Your task to perform on an android device: What is the average speed of a car? Image 0: 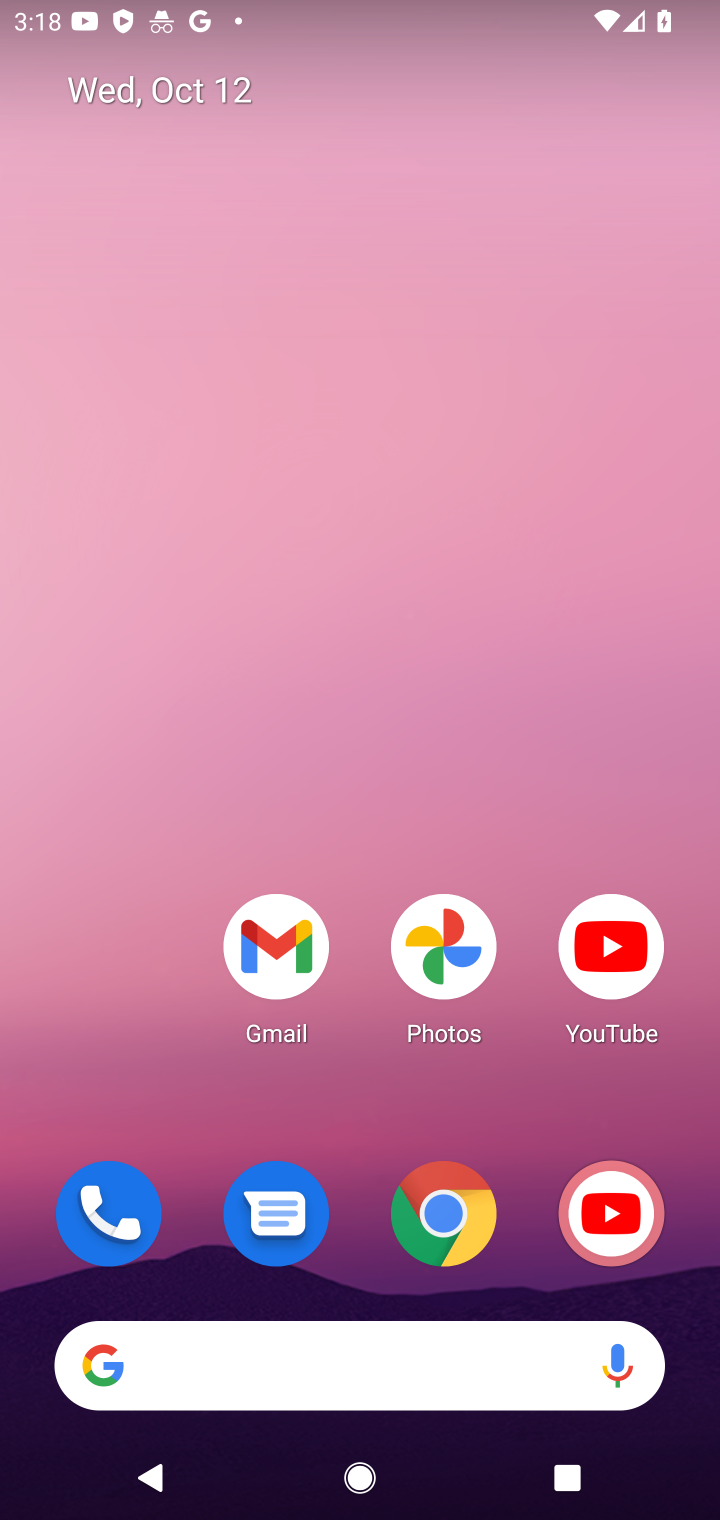
Step 0: click (226, 1361)
Your task to perform on an android device: What is the average speed of a car? Image 1: 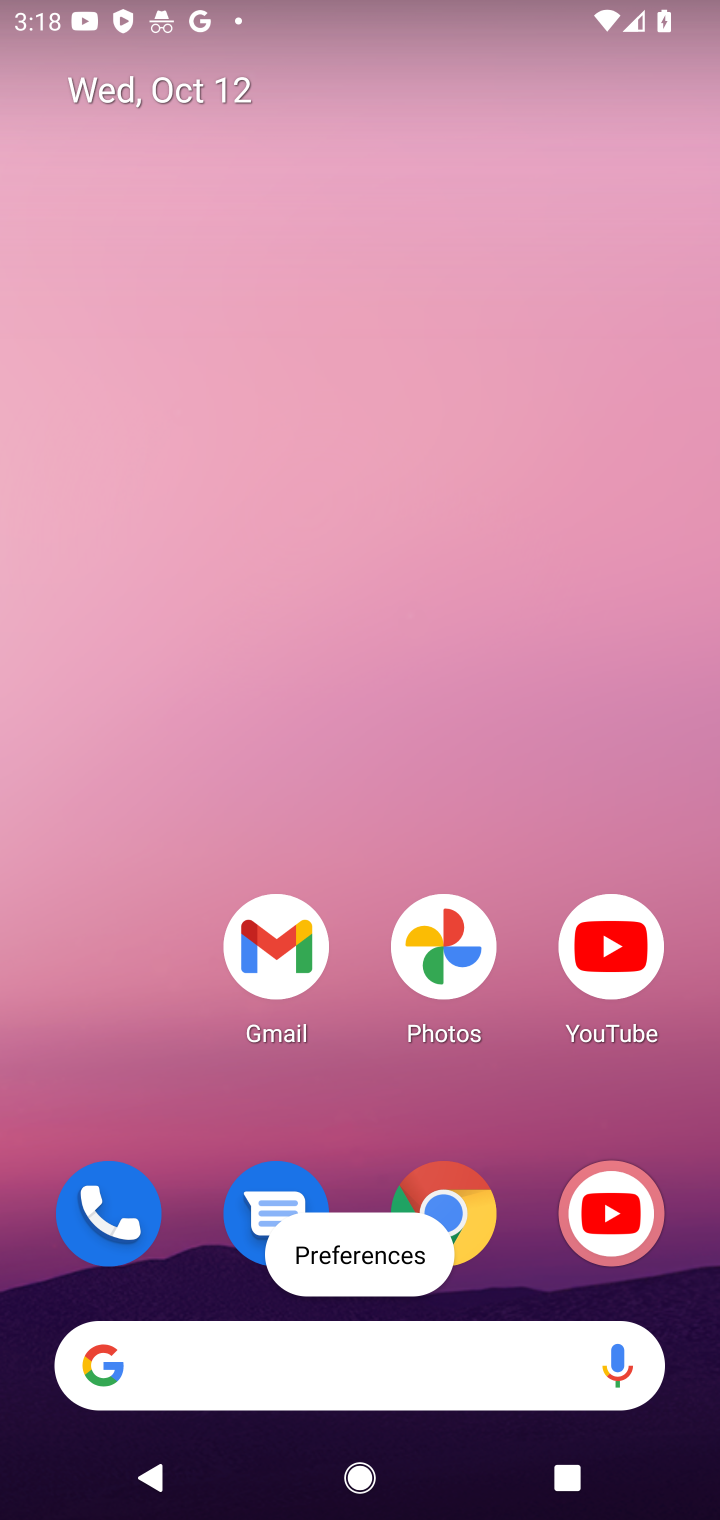
Step 1: click (226, 1361)
Your task to perform on an android device: What is the average speed of a car? Image 2: 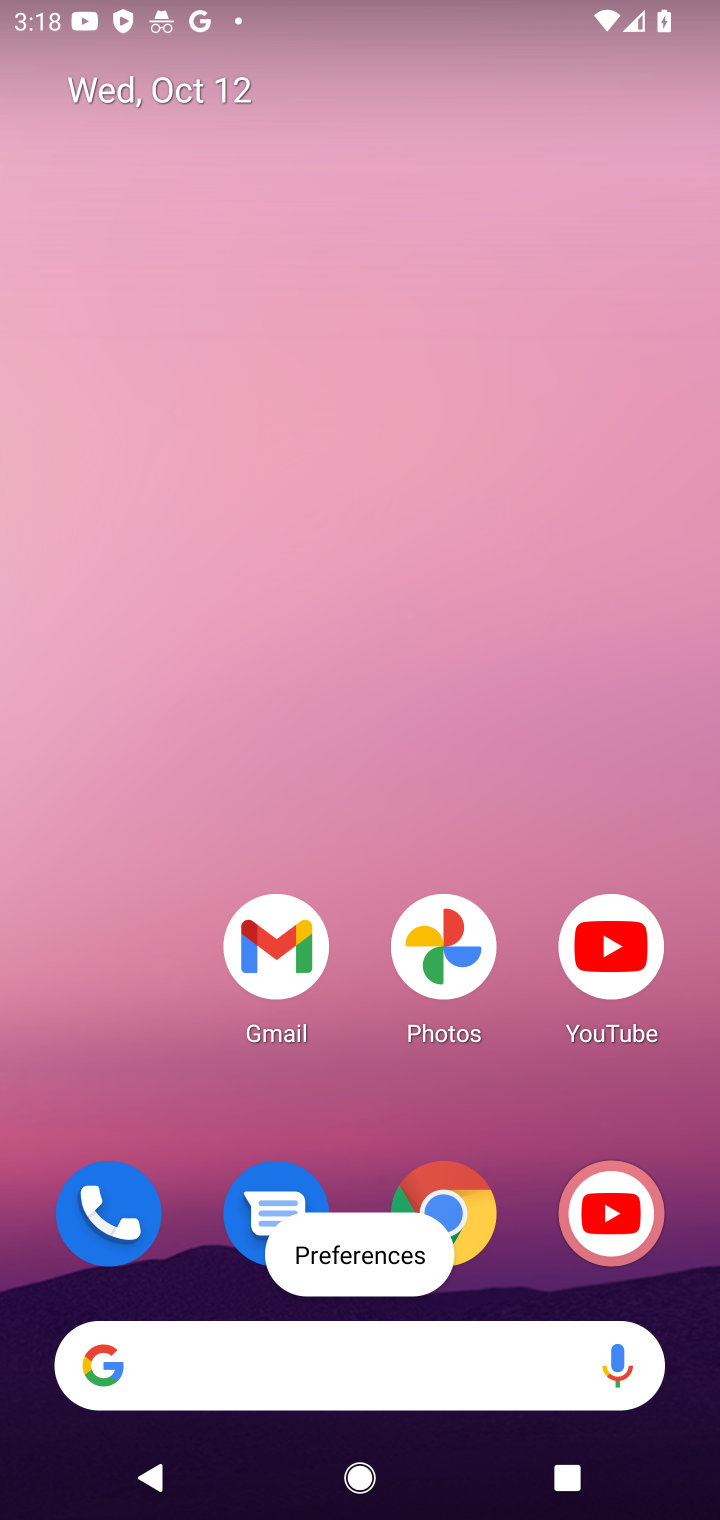
Step 2: click (274, 1341)
Your task to perform on an android device: What is the average speed of a car? Image 3: 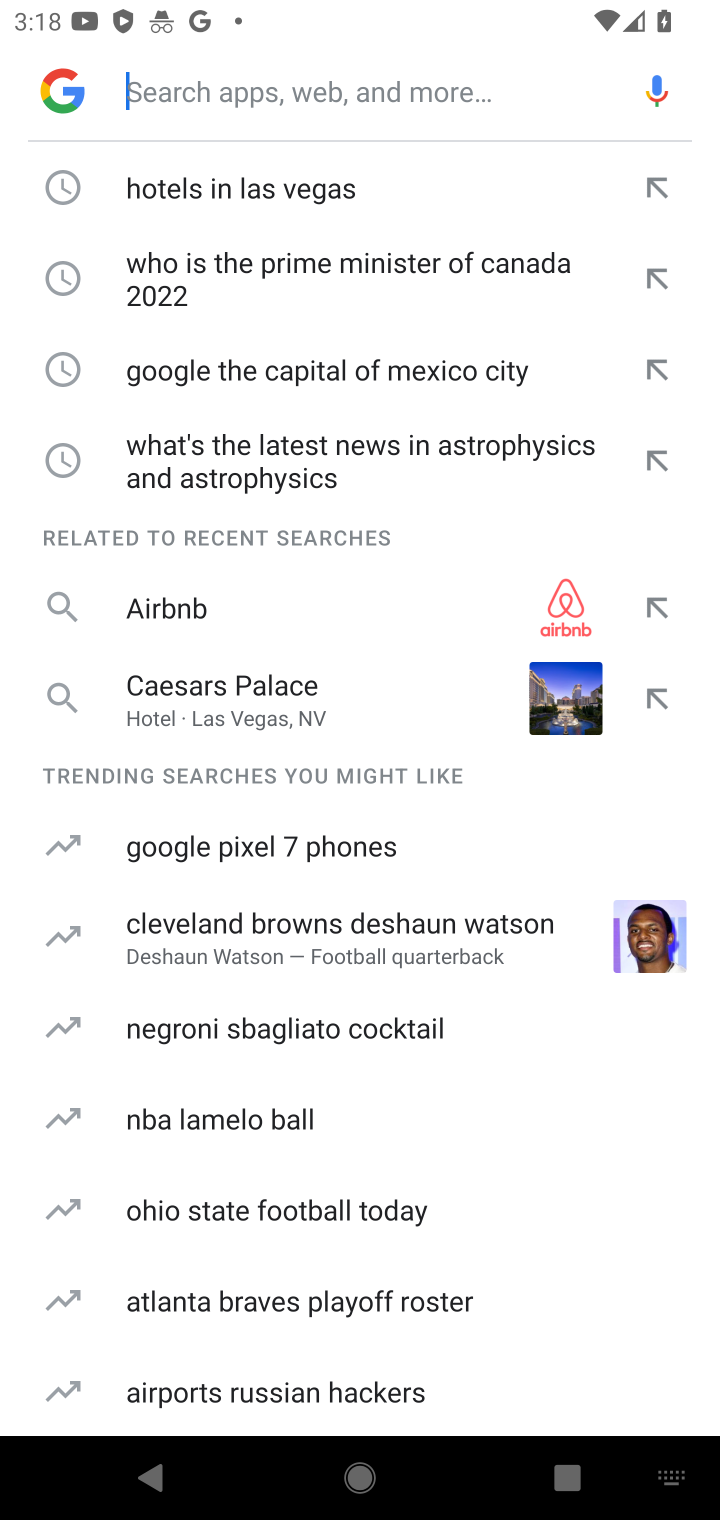
Step 3: click (309, 74)
Your task to perform on an android device: What is the average speed of a car? Image 4: 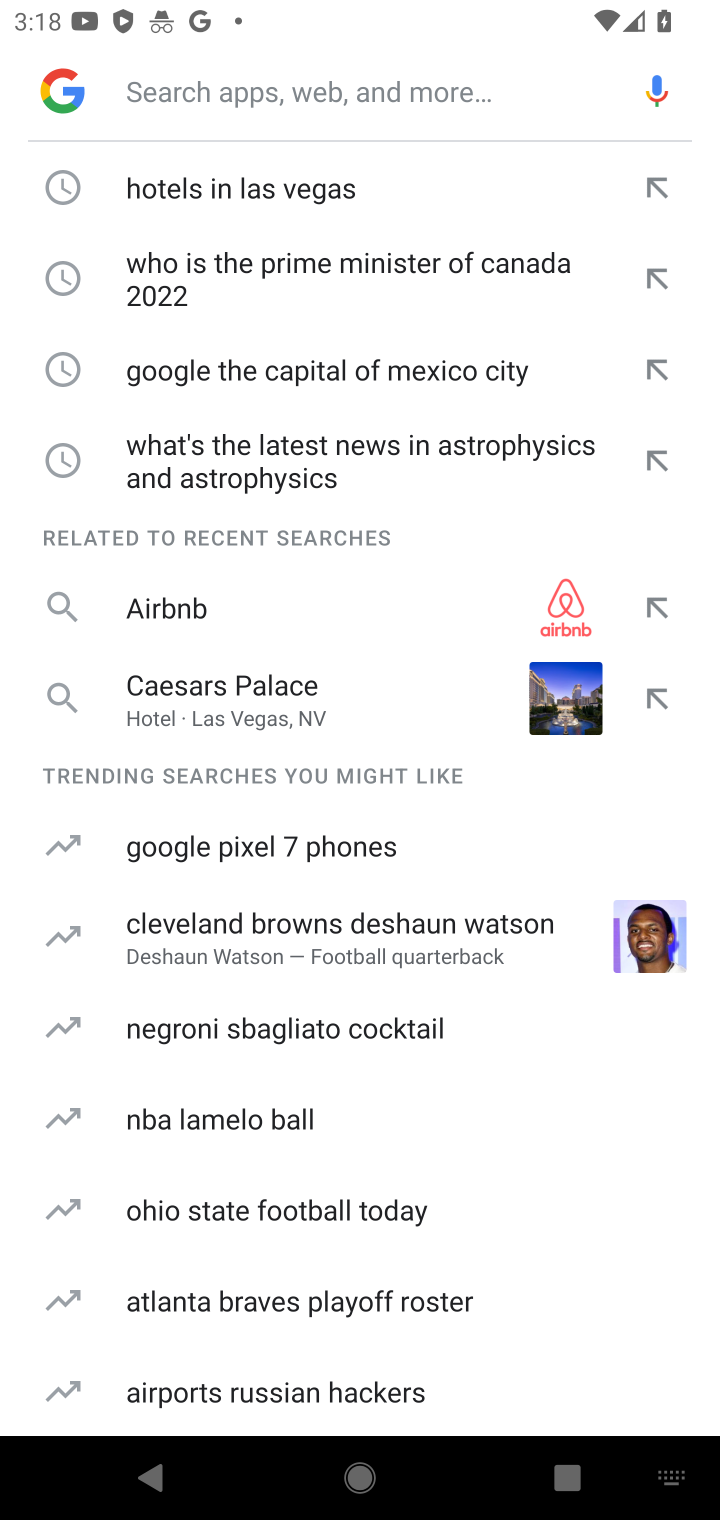
Step 4: type "What is the average speed of a car?"
Your task to perform on an android device: What is the average speed of a car? Image 5: 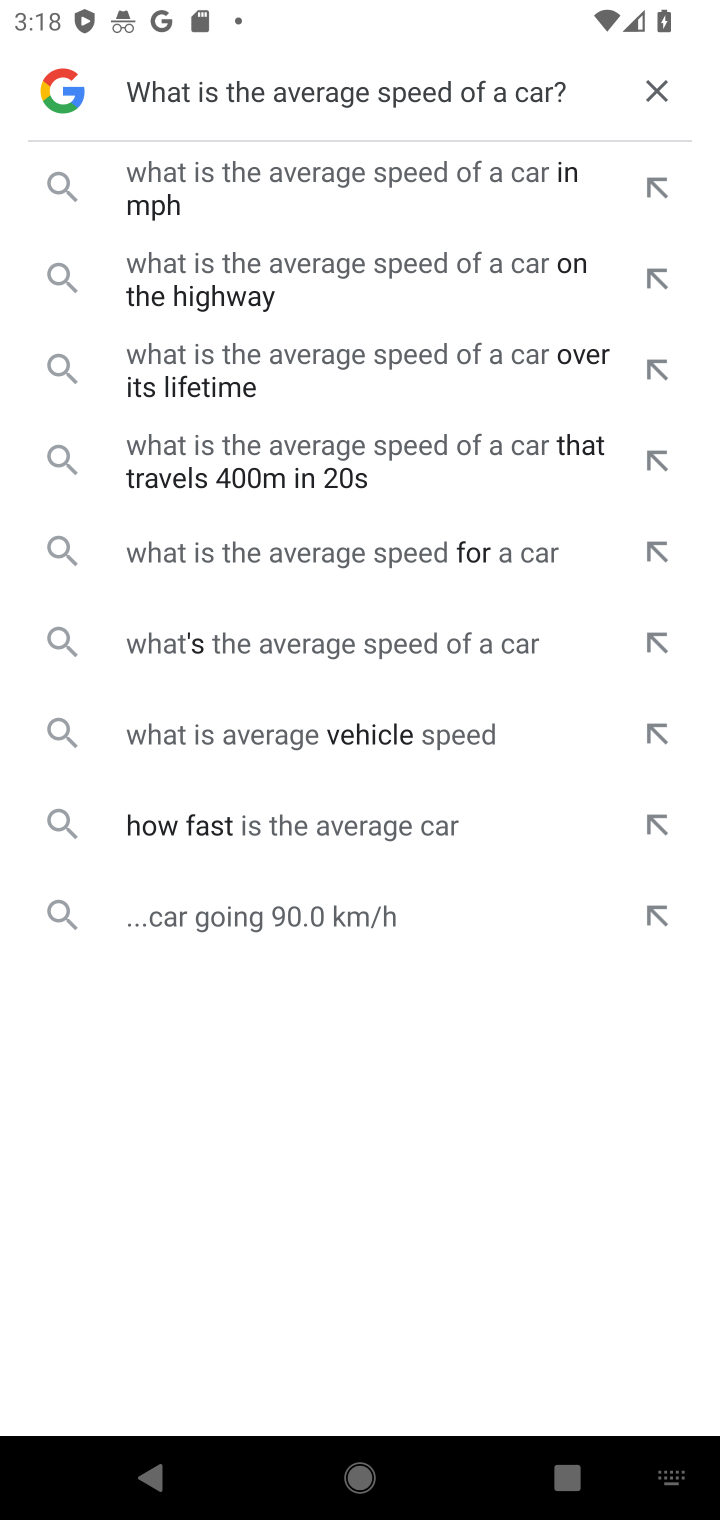
Step 5: click (382, 194)
Your task to perform on an android device: What is the average speed of a car? Image 6: 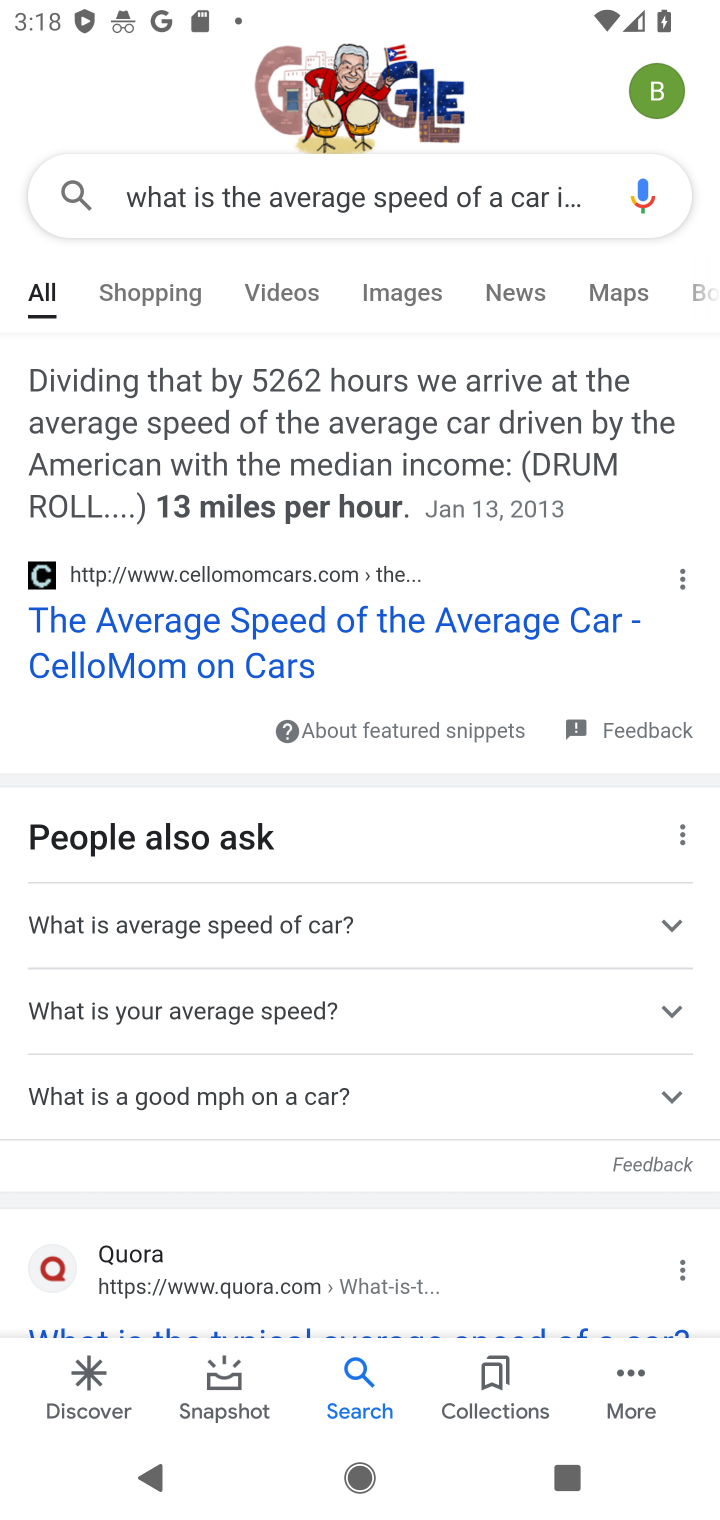
Step 6: task complete